Your task to perform on an android device: Check the news Image 0: 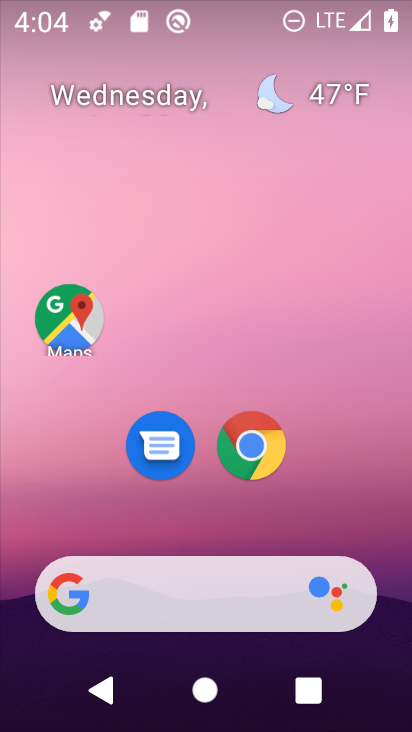
Step 0: drag from (285, 462) to (349, 212)
Your task to perform on an android device: Check the news Image 1: 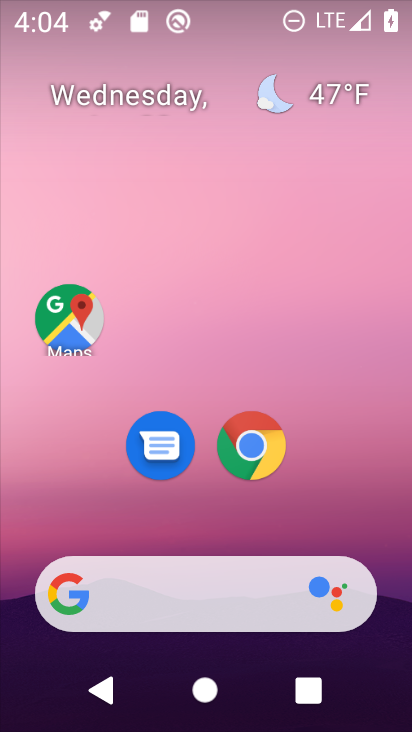
Step 1: drag from (334, 402) to (353, 43)
Your task to perform on an android device: Check the news Image 2: 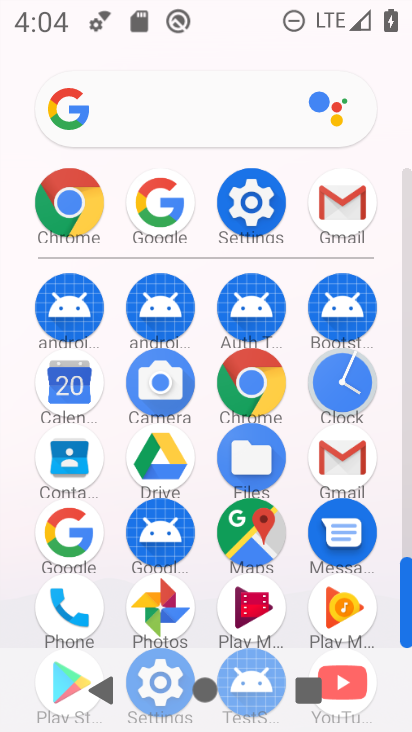
Step 2: click (167, 206)
Your task to perform on an android device: Check the news Image 3: 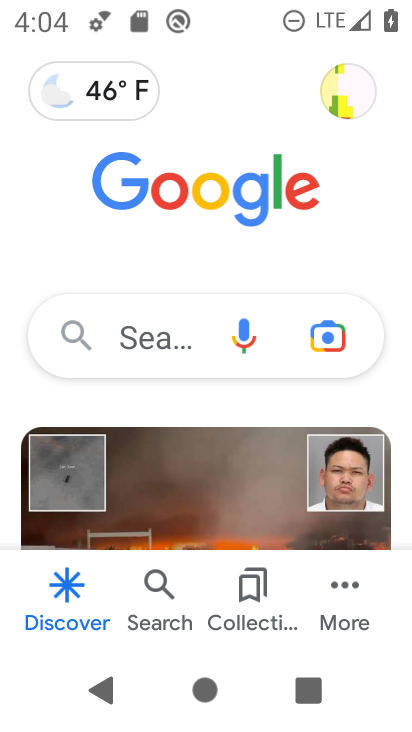
Step 3: click (169, 329)
Your task to perform on an android device: Check the news Image 4: 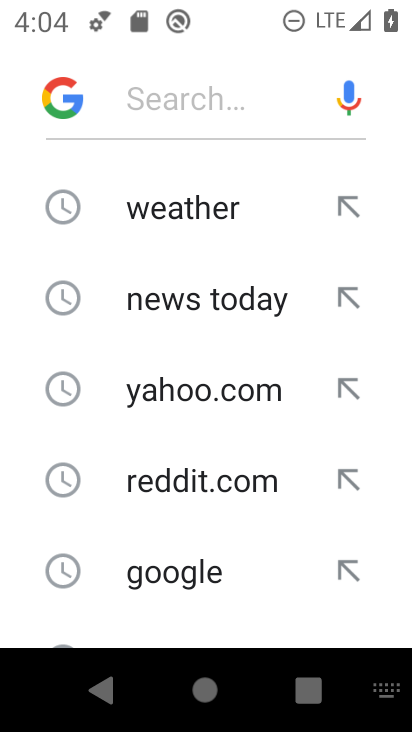
Step 4: click (181, 311)
Your task to perform on an android device: Check the news Image 5: 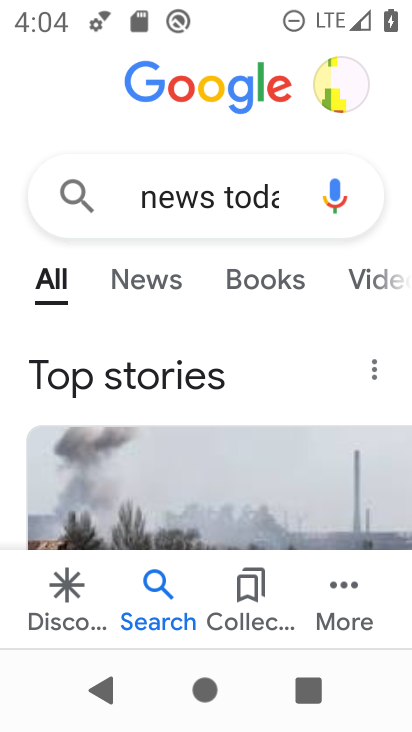
Step 5: task complete